Your task to perform on an android device: allow notifications from all sites in the chrome app Image 0: 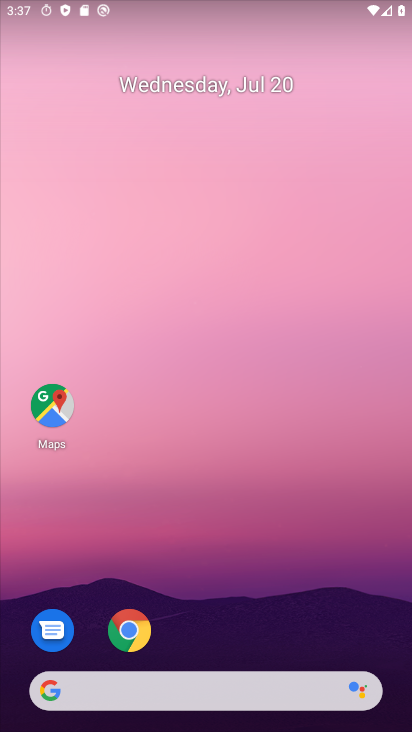
Step 0: press home button
Your task to perform on an android device: allow notifications from all sites in the chrome app Image 1: 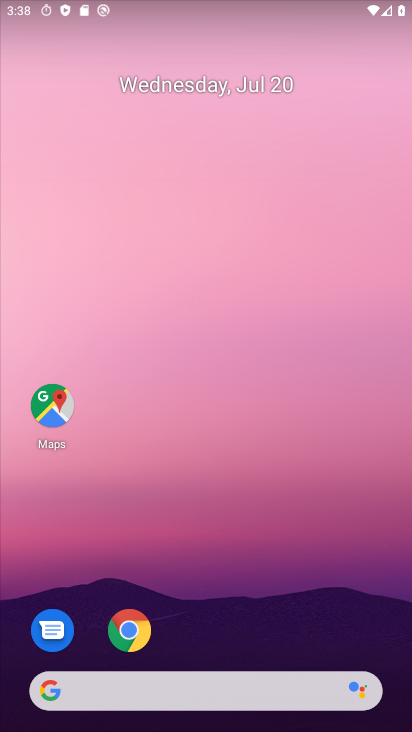
Step 1: drag from (220, 559) to (225, 137)
Your task to perform on an android device: allow notifications from all sites in the chrome app Image 2: 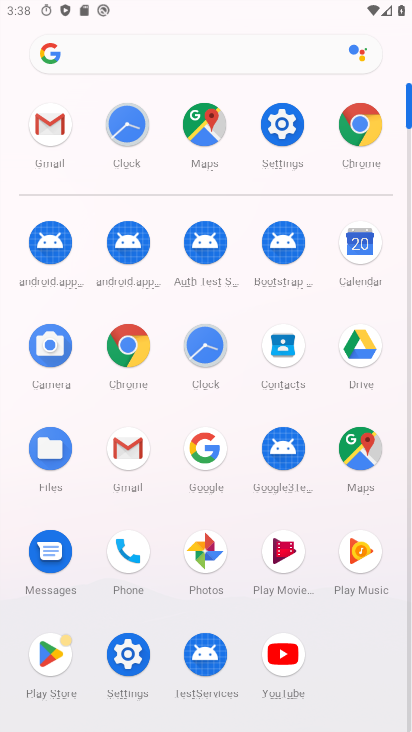
Step 2: click (357, 131)
Your task to perform on an android device: allow notifications from all sites in the chrome app Image 3: 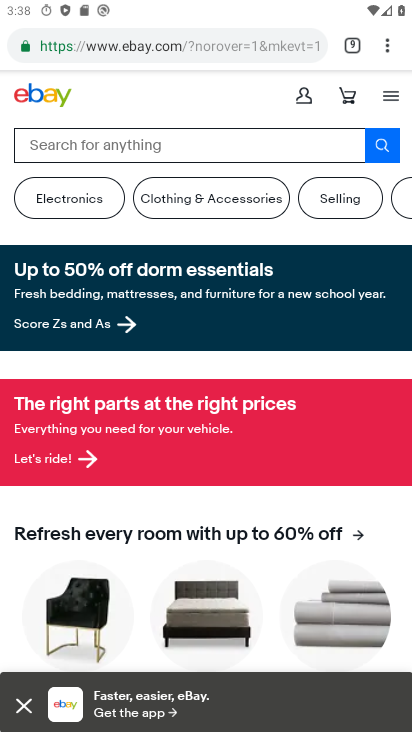
Step 3: drag from (382, 45) to (221, 553)
Your task to perform on an android device: allow notifications from all sites in the chrome app Image 4: 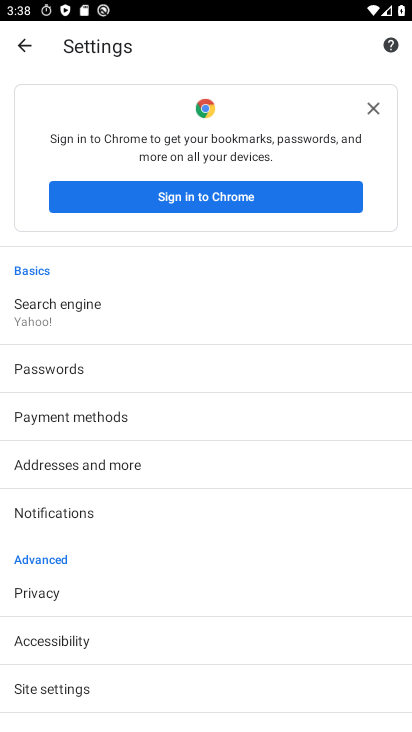
Step 4: click (63, 695)
Your task to perform on an android device: allow notifications from all sites in the chrome app Image 5: 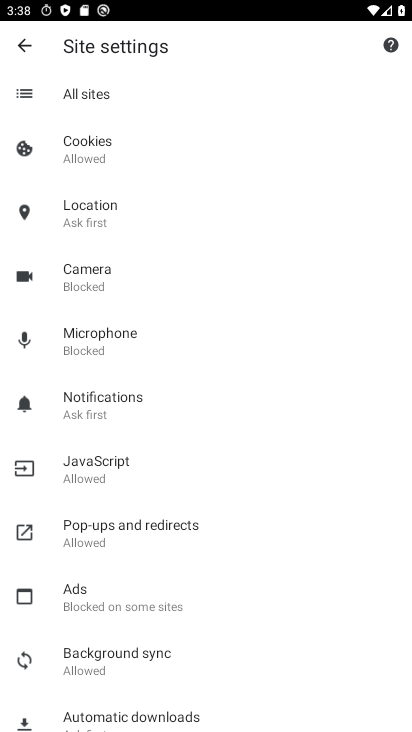
Step 5: click (95, 394)
Your task to perform on an android device: allow notifications from all sites in the chrome app Image 6: 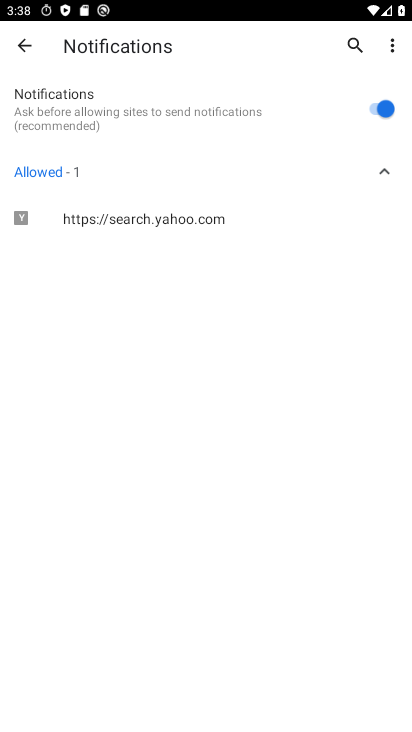
Step 6: task complete